Your task to perform on an android device: What's the latest news in space science? Image 0: 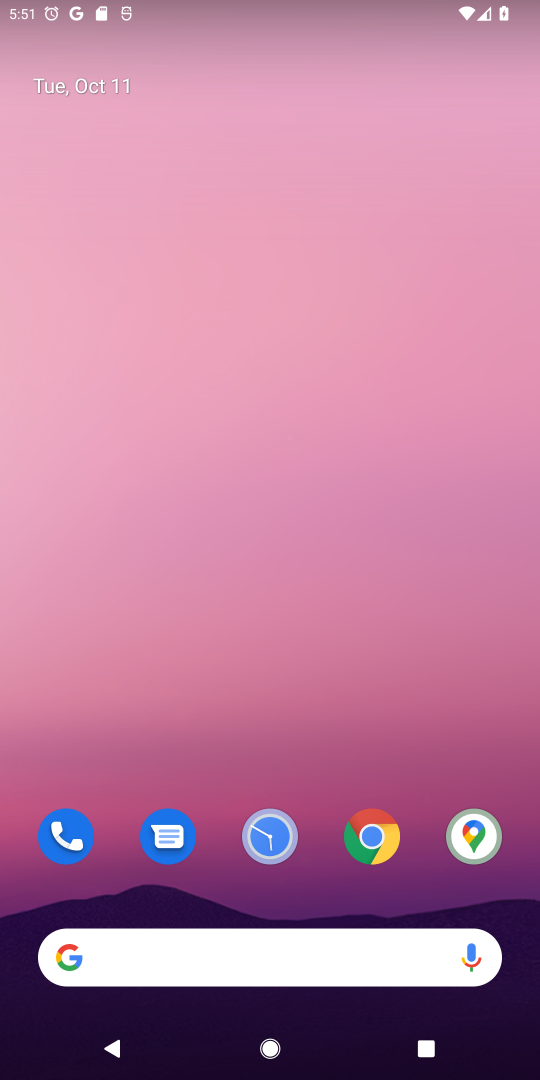
Step 0: click (320, 949)
Your task to perform on an android device: What's the latest news in space science? Image 1: 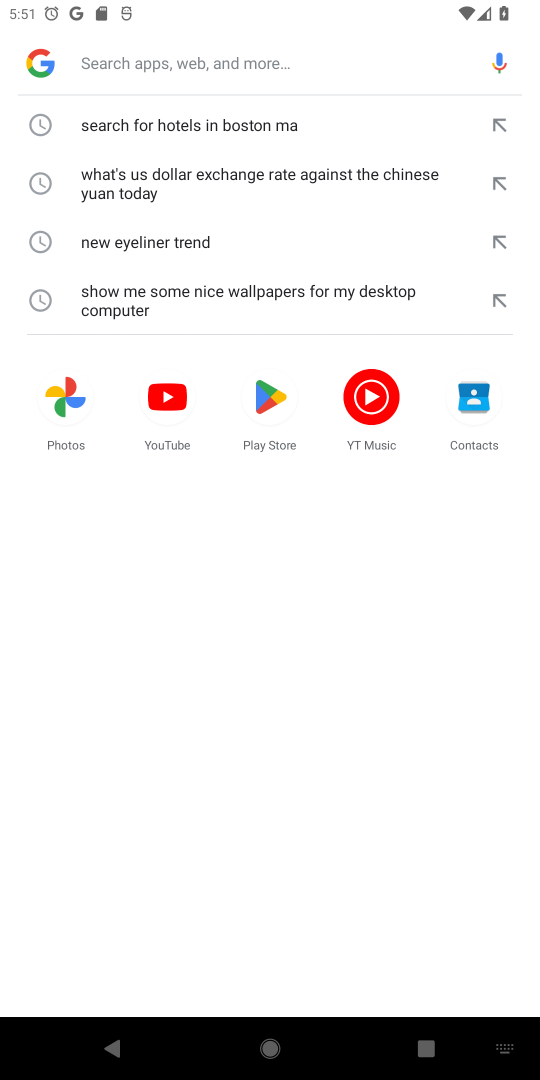
Step 1: type "What's the latest news in space science?"
Your task to perform on an android device: What's the latest news in space science? Image 2: 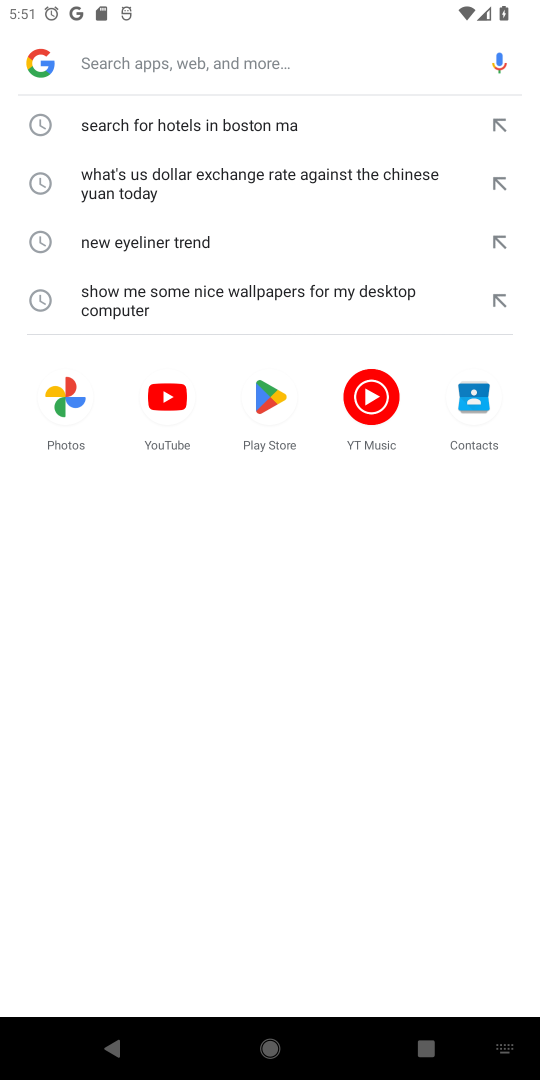
Step 2: click (135, 111)
Your task to perform on an android device: What's the latest news in space science? Image 3: 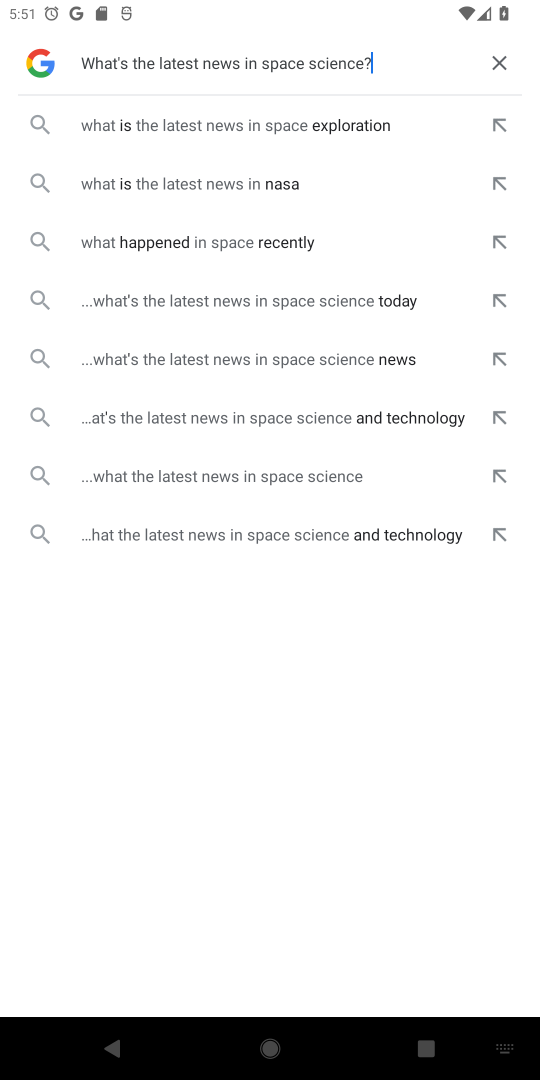
Step 3: click (135, 111)
Your task to perform on an android device: What's the latest news in space science? Image 4: 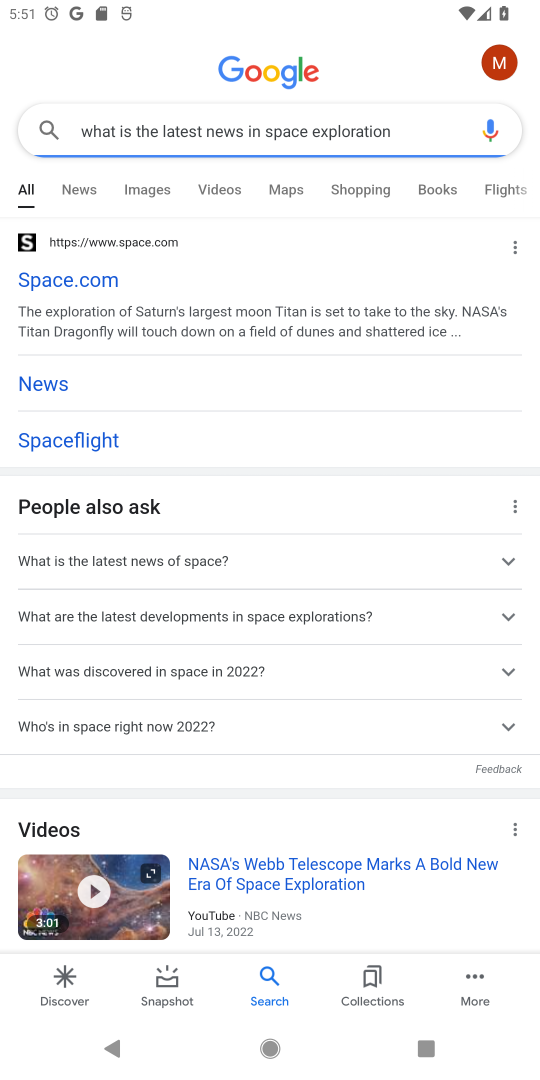
Step 4: task complete